Your task to perform on an android device: Open sound settings Image 0: 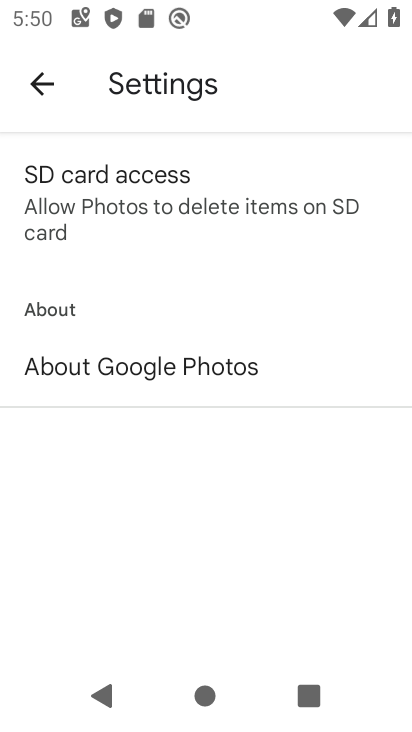
Step 0: press home button
Your task to perform on an android device: Open sound settings Image 1: 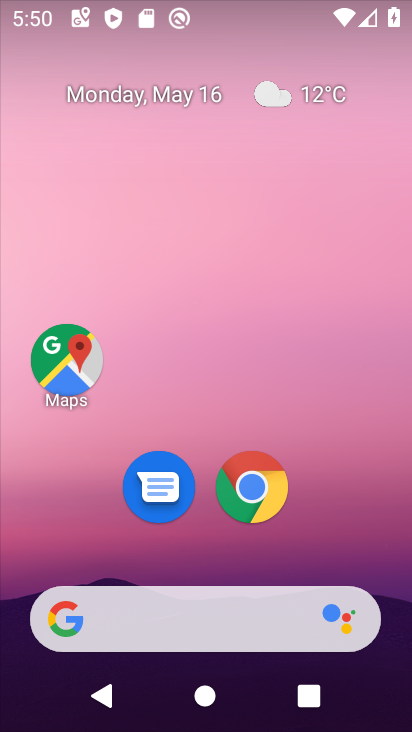
Step 1: drag from (333, 522) to (310, 166)
Your task to perform on an android device: Open sound settings Image 2: 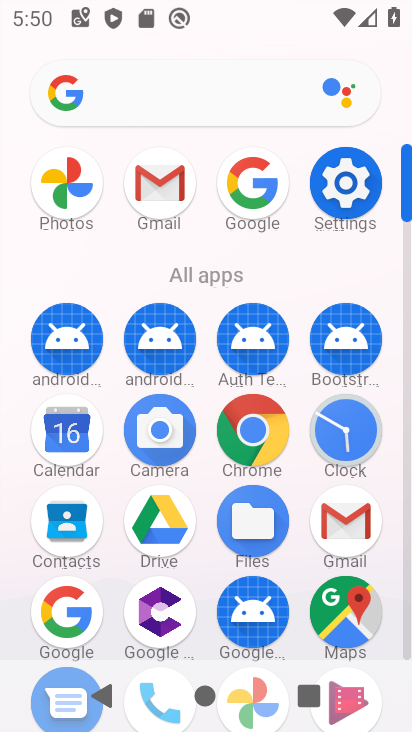
Step 2: click (347, 184)
Your task to perform on an android device: Open sound settings Image 3: 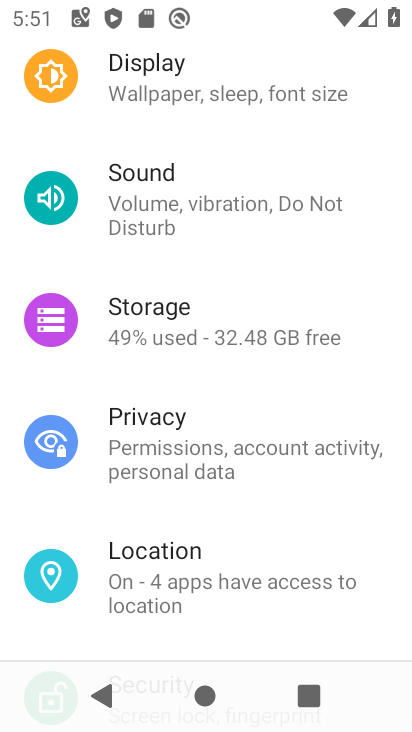
Step 3: click (224, 196)
Your task to perform on an android device: Open sound settings Image 4: 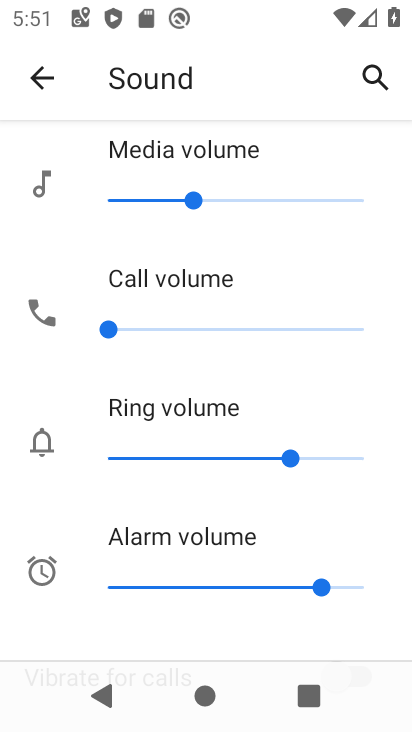
Step 4: task complete